Your task to perform on an android device: See recent photos Image 0: 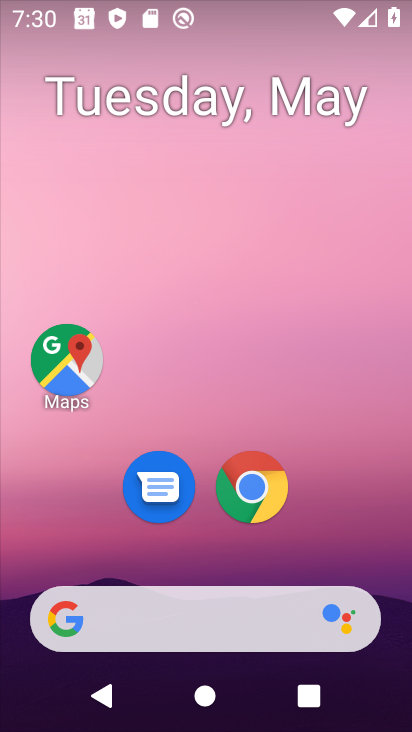
Step 0: drag from (366, 539) to (386, 203)
Your task to perform on an android device: See recent photos Image 1: 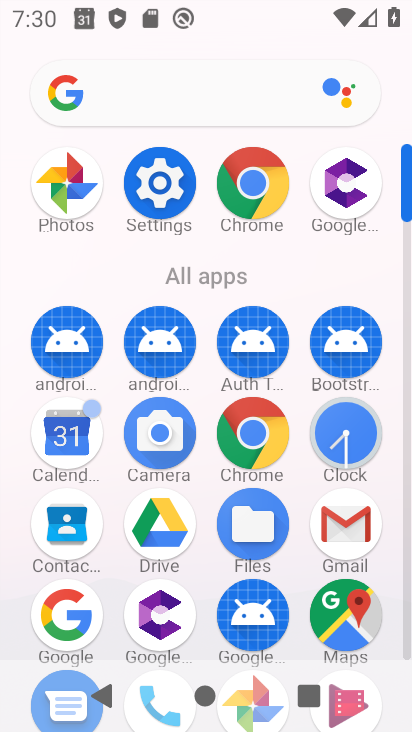
Step 1: drag from (298, 578) to (300, 338)
Your task to perform on an android device: See recent photos Image 2: 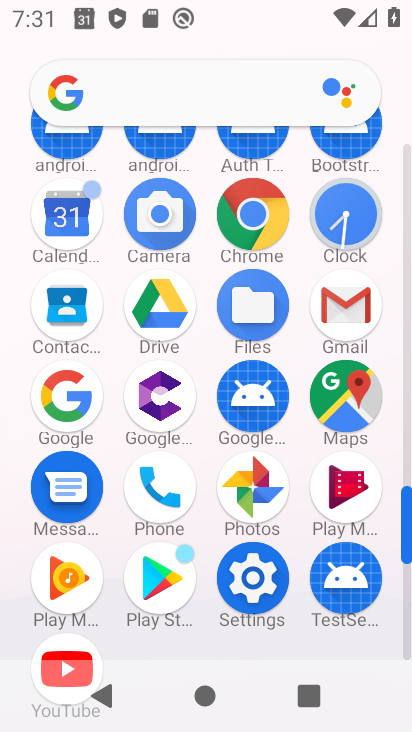
Step 2: click (270, 508)
Your task to perform on an android device: See recent photos Image 3: 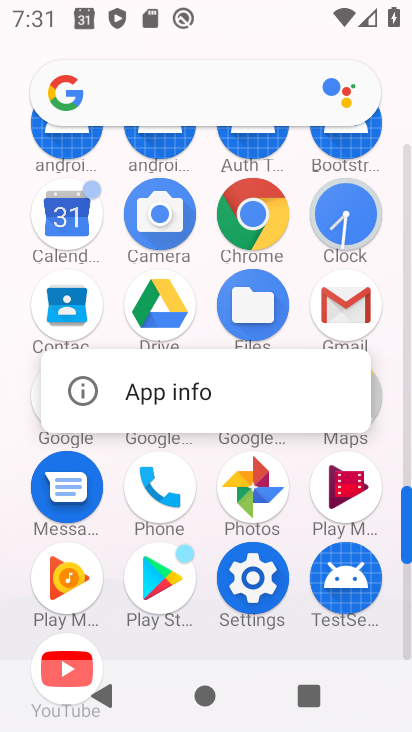
Step 3: click (270, 508)
Your task to perform on an android device: See recent photos Image 4: 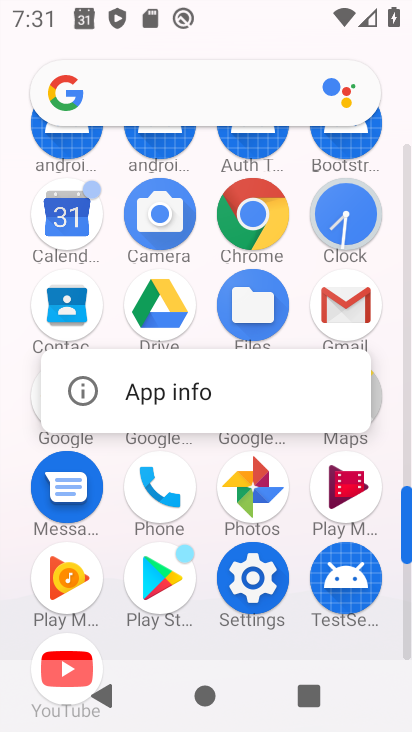
Step 4: click (270, 508)
Your task to perform on an android device: See recent photos Image 5: 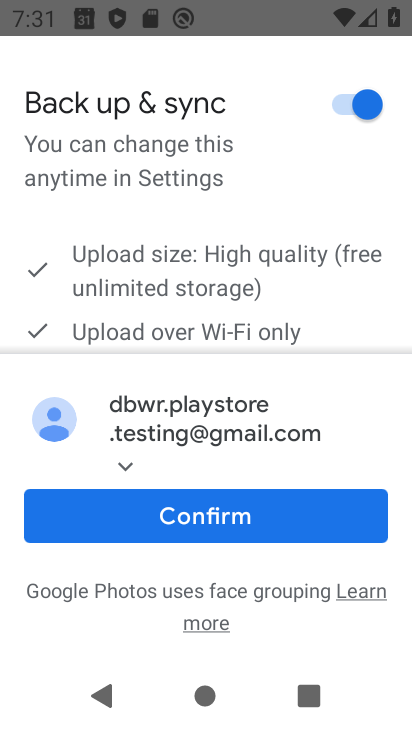
Step 5: click (347, 517)
Your task to perform on an android device: See recent photos Image 6: 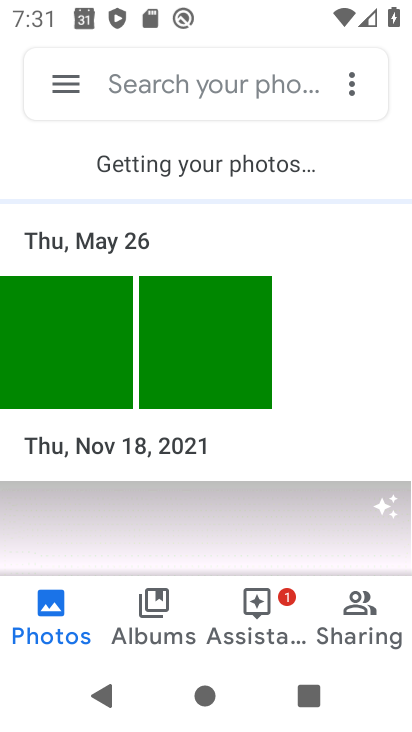
Step 6: click (120, 325)
Your task to perform on an android device: See recent photos Image 7: 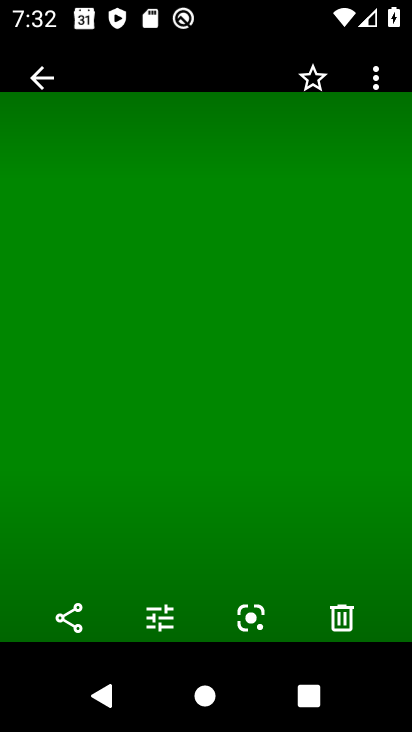
Step 7: task complete